Your task to perform on an android device: Open a new Chrome incognito tab Image 0: 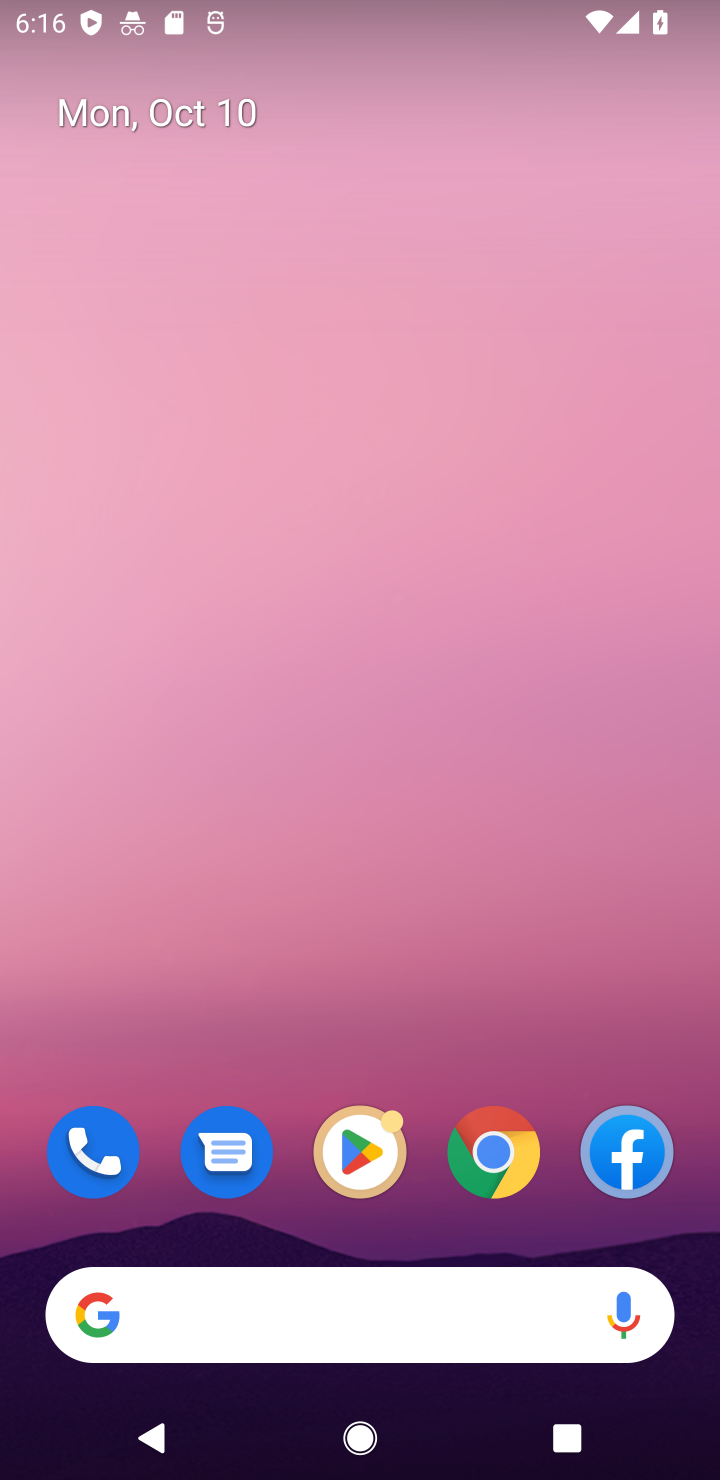
Step 0: click (492, 1159)
Your task to perform on an android device: Open a new Chrome incognito tab Image 1: 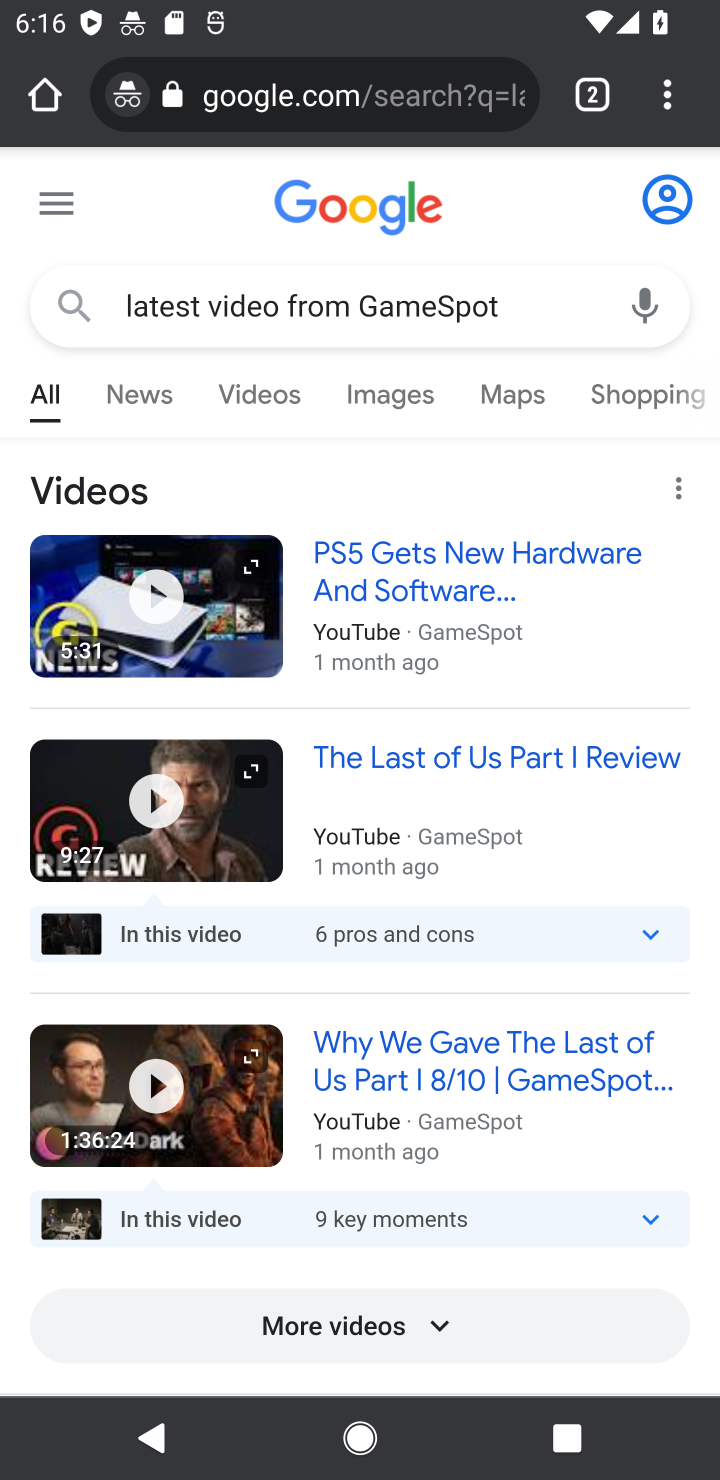
Step 1: click (674, 96)
Your task to perform on an android device: Open a new Chrome incognito tab Image 2: 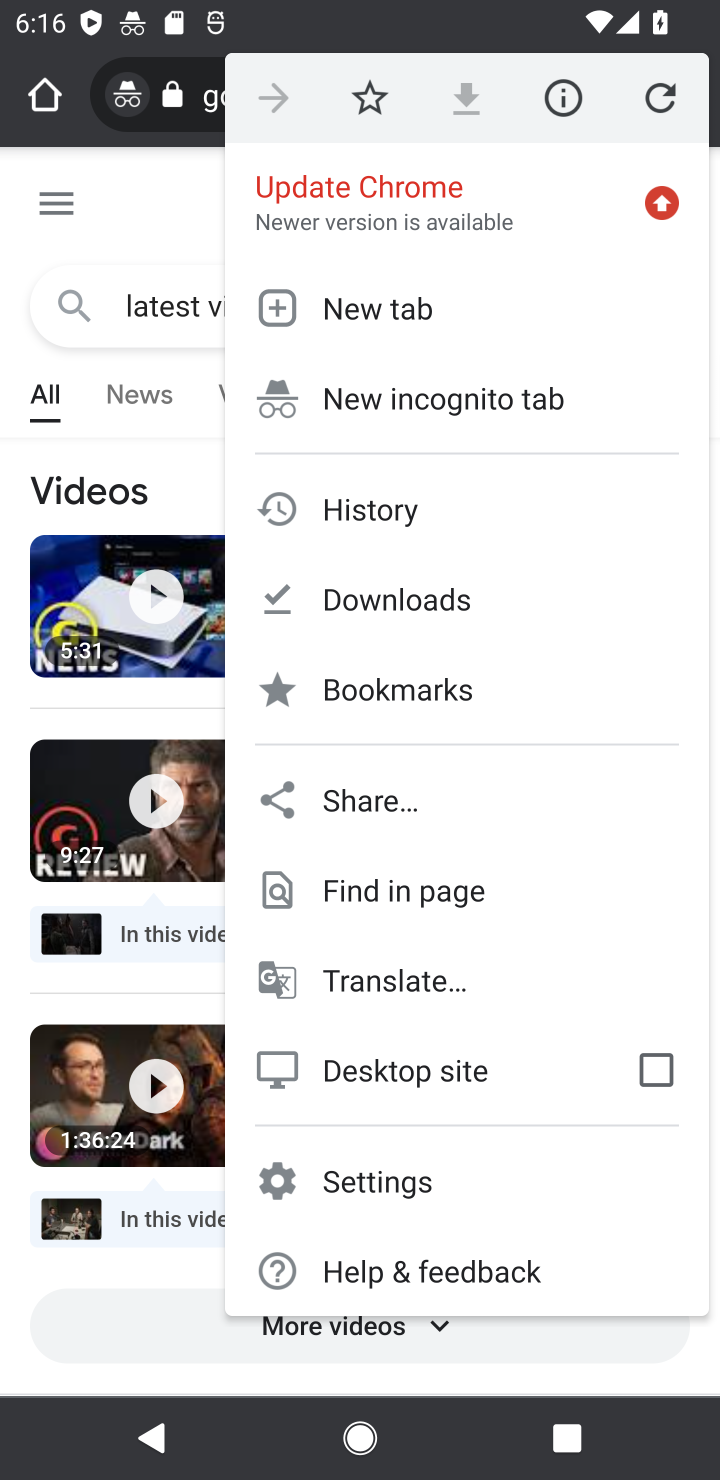
Step 2: click (439, 396)
Your task to perform on an android device: Open a new Chrome incognito tab Image 3: 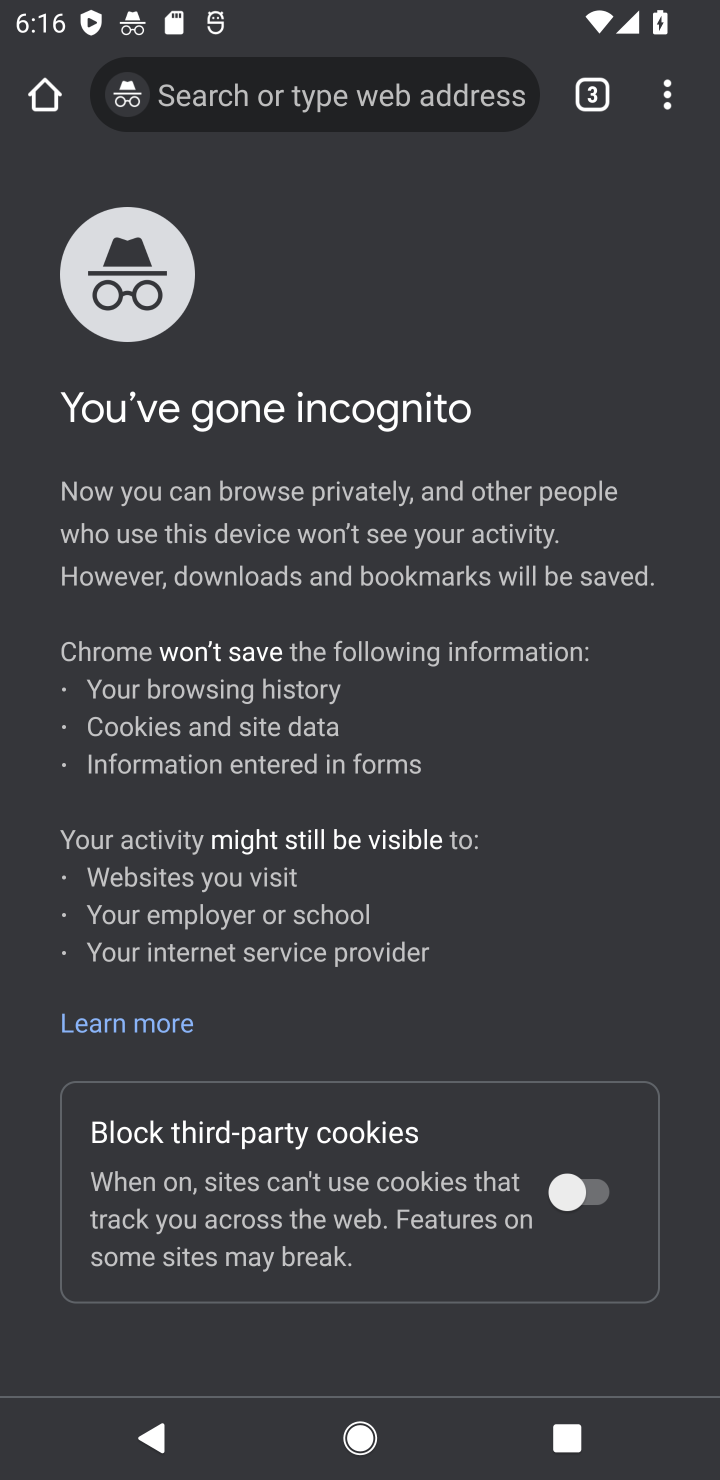
Step 3: task complete